Your task to perform on an android device: Do I have any events this weekend? Image 0: 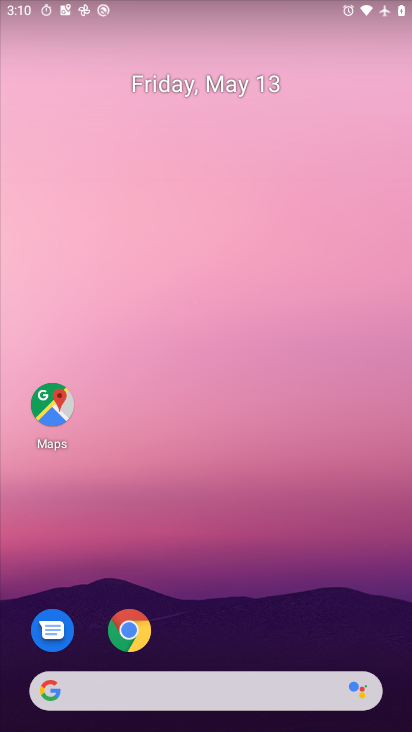
Step 0: drag from (286, 639) to (298, 261)
Your task to perform on an android device: Do I have any events this weekend? Image 1: 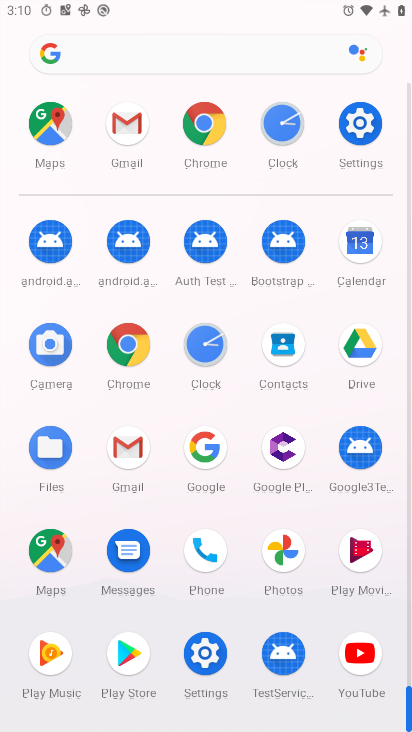
Step 1: click (352, 260)
Your task to perform on an android device: Do I have any events this weekend? Image 2: 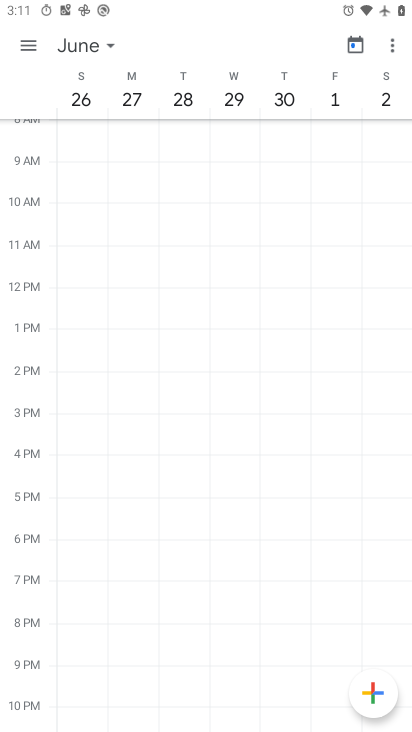
Step 2: click (23, 54)
Your task to perform on an android device: Do I have any events this weekend? Image 3: 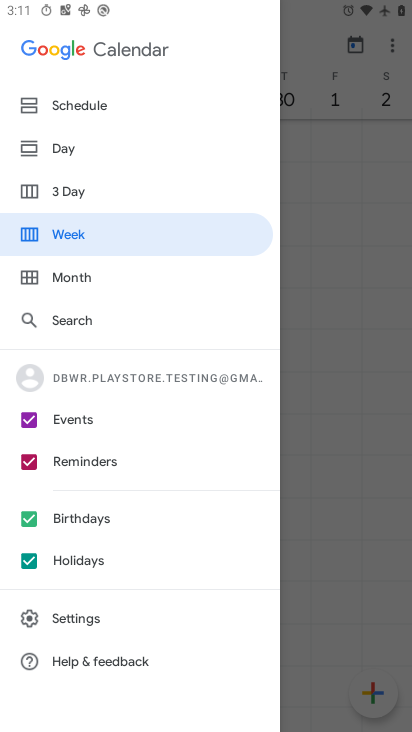
Step 3: click (117, 233)
Your task to perform on an android device: Do I have any events this weekend? Image 4: 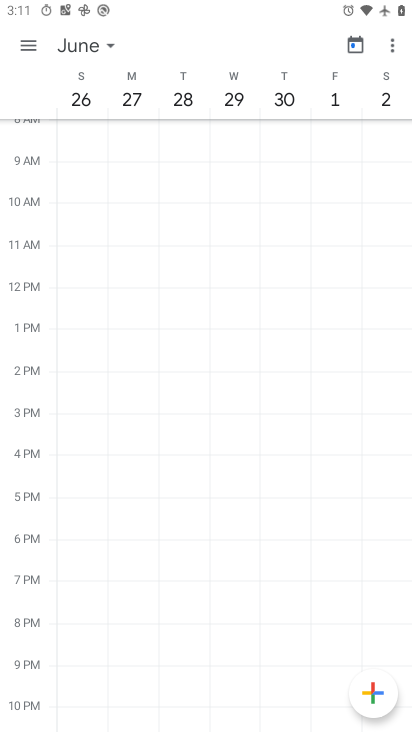
Step 4: drag from (249, 553) to (240, 164)
Your task to perform on an android device: Do I have any events this weekend? Image 5: 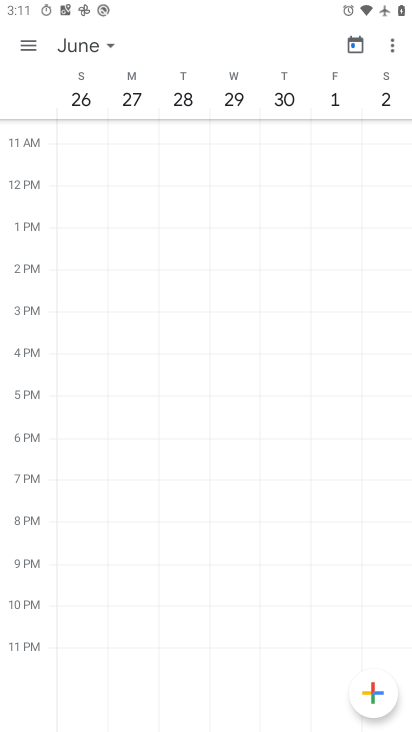
Step 5: click (112, 35)
Your task to perform on an android device: Do I have any events this weekend? Image 6: 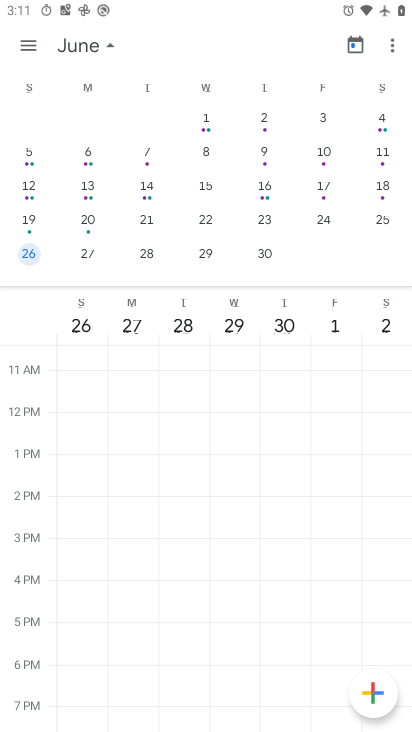
Step 6: drag from (56, 212) to (278, 205)
Your task to perform on an android device: Do I have any events this weekend? Image 7: 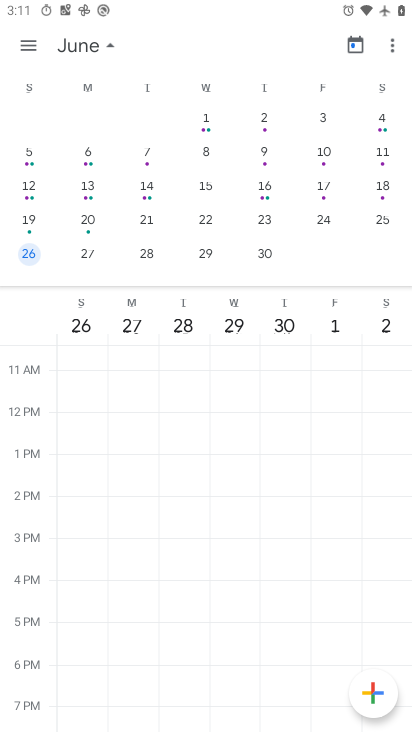
Step 7: drag from (54, 186) to (352, 206)
Your task to perform on an android device: Do I have any events this weekend? Image 8: 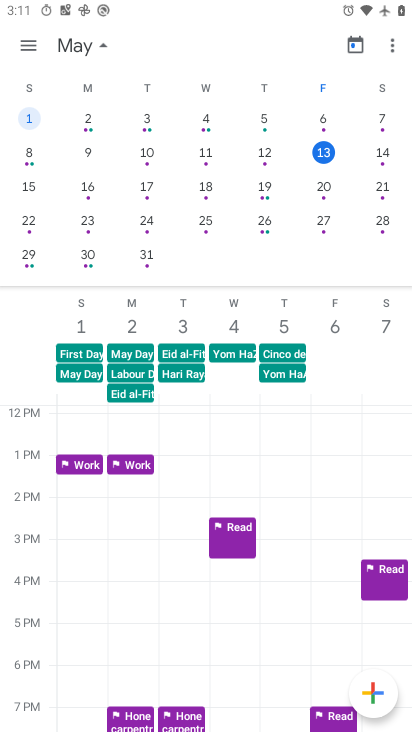
Step 8: click (325, 153)
Your task to perform on an android device: Do I have any events this weekend? Image 9: 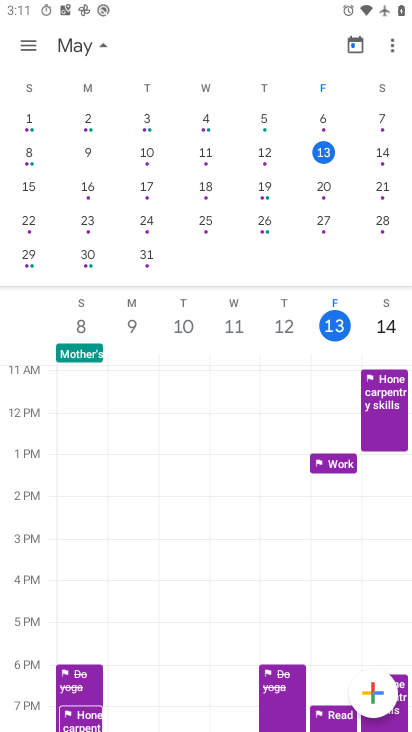
Step 9: click (98, 43)
Your task to perform on an android device: Do I have any events this weekend? Image 10: 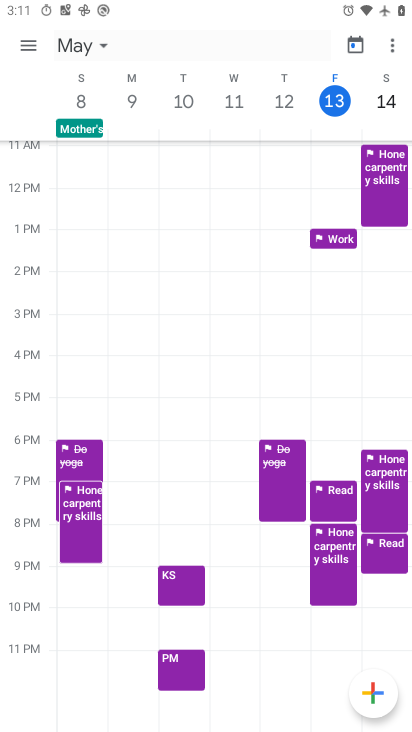
Step 10: task complete